Your task to perform on an android device: see creations saved in the google photos Image 0: 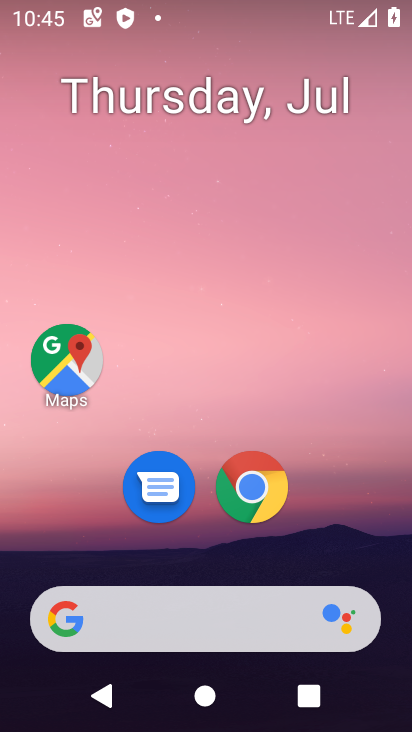
Step 0: drag from (248, 556) to (295, 66)
Your task to perform on an android device: see creations saved in the google photos Image 1: 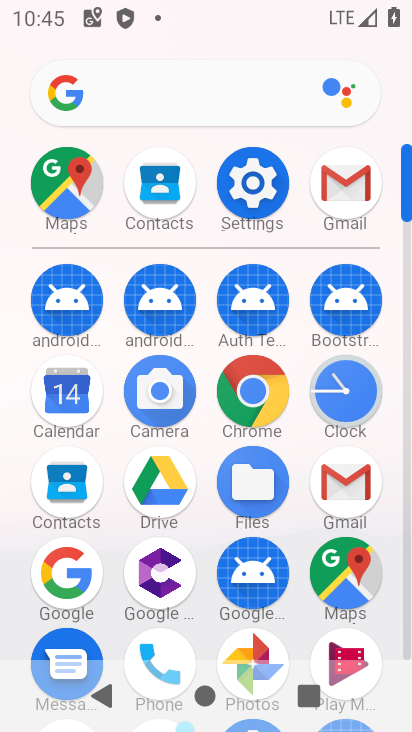
Step 1: click (254, 641)
Your task to perform on an android device: see creations saved in the google photos Image 2: 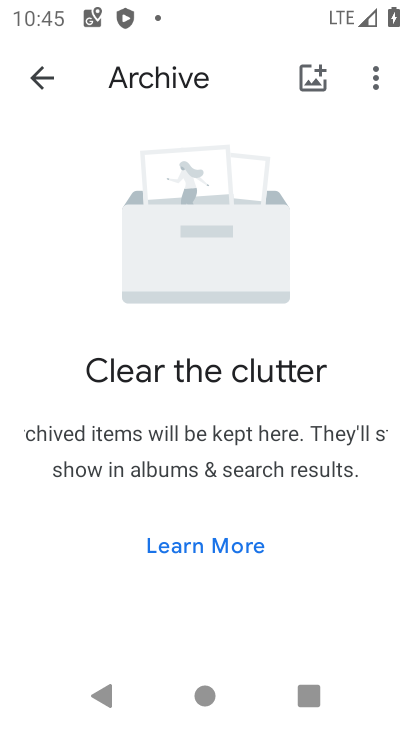
Step 2: click (42, 60)
Your task to perform on an android device: see creations saved in the google photos Image 3: 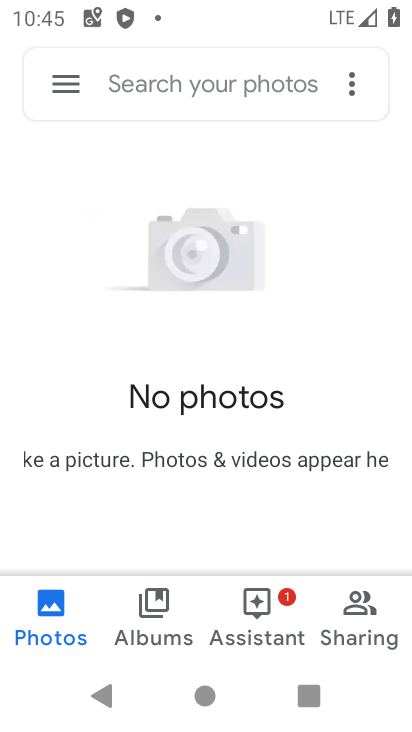
Step 3: click (63, 78)
Your task to perform on an android device: see creations saved in the google photos Image 4: 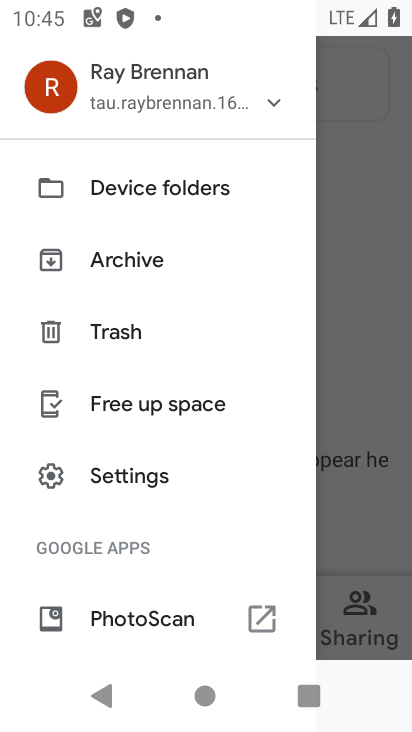
Step 4: click (133, 252)
Your task to perform on an android device: see creations saved in the google photos Image 5: 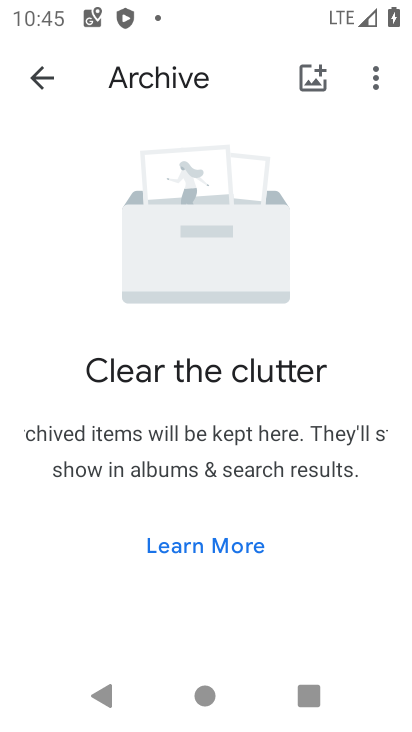
Step 5: task complete